Your task to perform on an android device: open a bookmark in the chrome app Image 0: 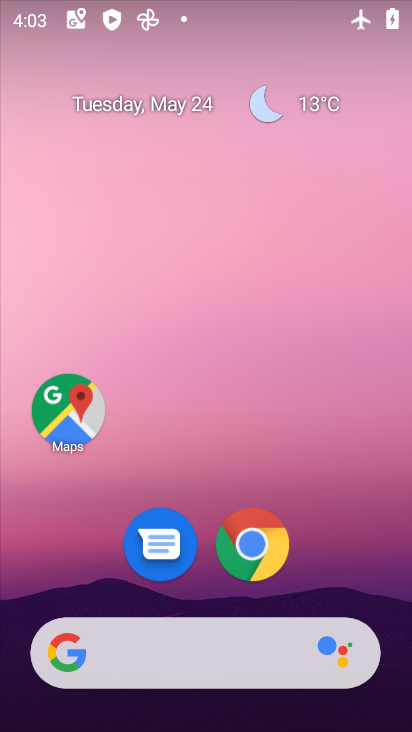
Step 0: drag from (320, 579) to (325, 0)
Your task to perform on an android device: open a bookmark in the chrome app Image 1: 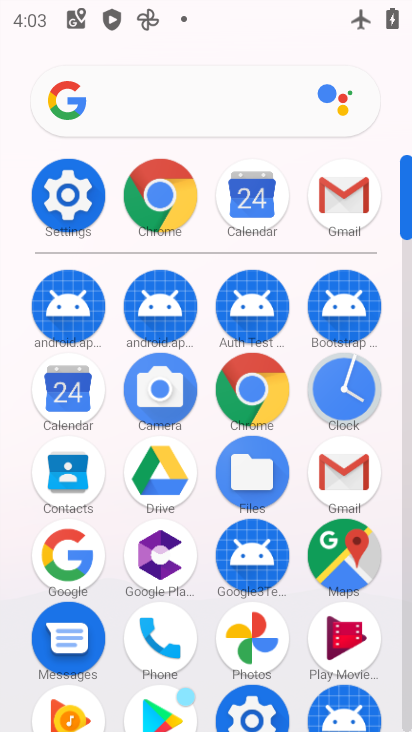
Step 1: click (161, 189)
Your task to perform on an android device: open a bookmark in the chrome app Image 2: 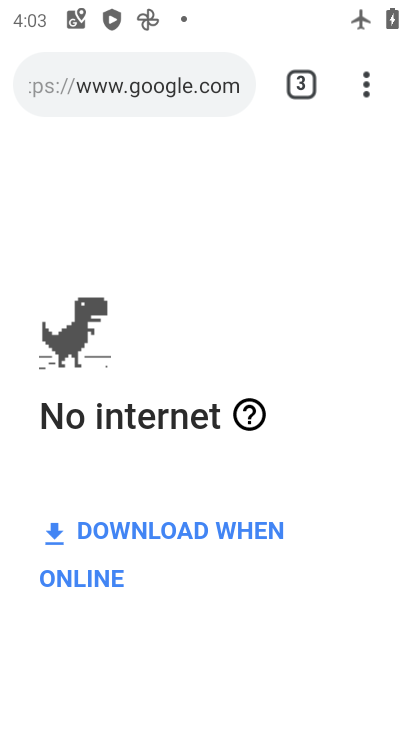
Step 2: task complete